Your task to perform on an android device: change notification settings in the gmail app Image 0: 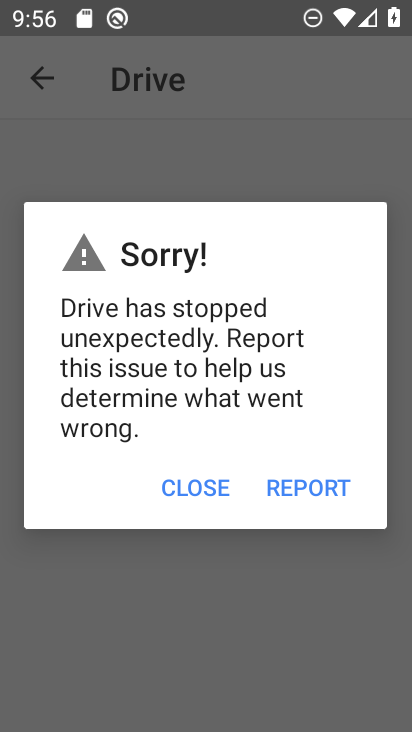
Step 0: press home button
Your task to perform on an android device: change notification settings in the gmail app Image 1: 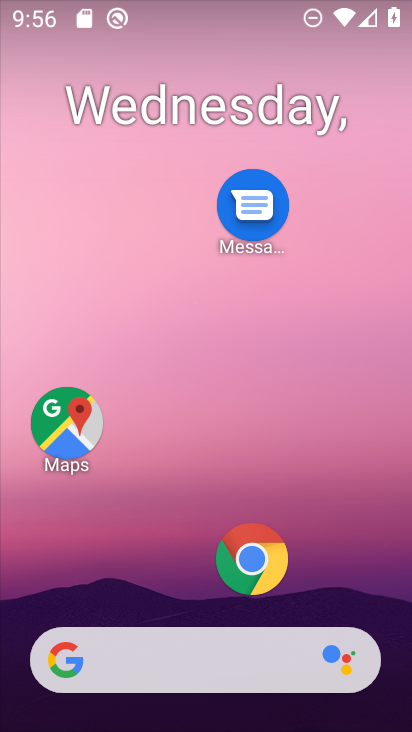
Step 1: drag from (236, 585) to (286, 80)
Your task to perform on an android device: change notification settings in the gmail app Image 2: 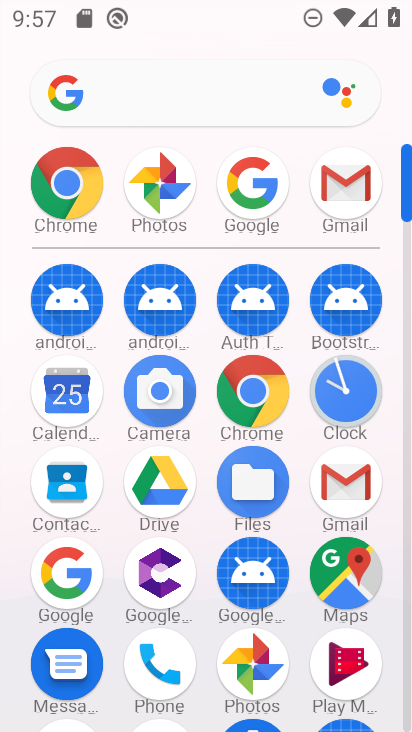
Step 2: click (348, 499)
Your task to perform on an android device: change notification settings in the gmail app Image 3: 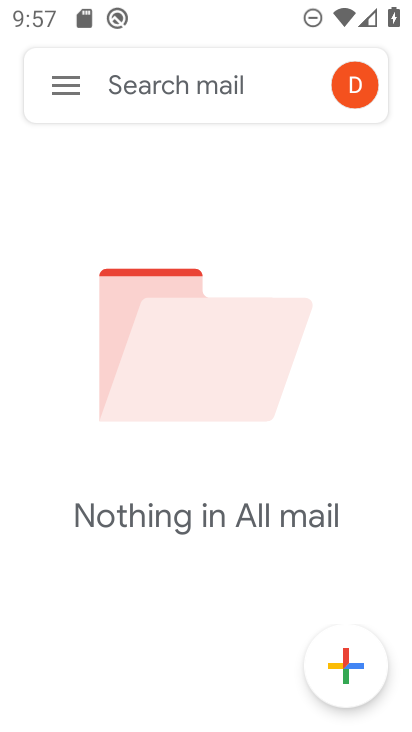
Step 3: click (75, 85)
Your task to perform on an android device: change notification settings in the gmail app Image 4: 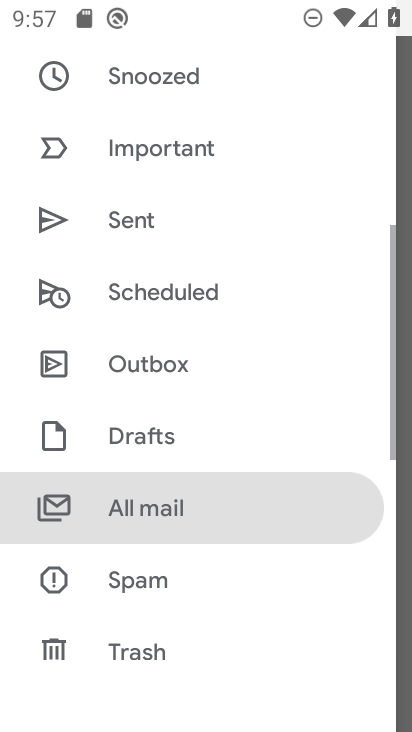
Step 4: drag from (198, 546) to (295, 171)
Your task to perform on an android device: change notification settings in the gmail app Image 5: 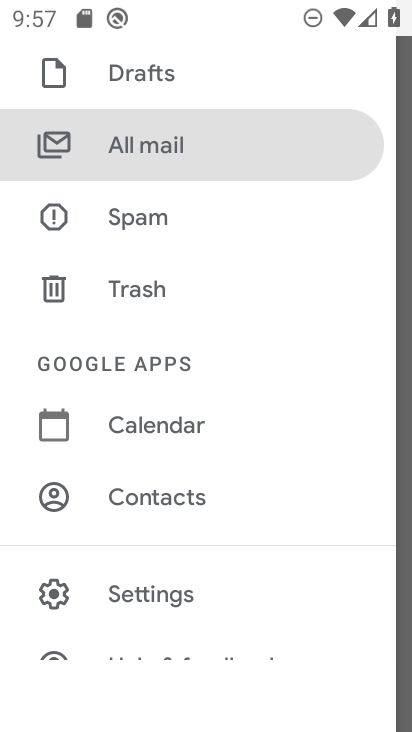
Step 5: click (139, 593)
Your task to perform on an android device: change notification settings in the gmail app Image 6: 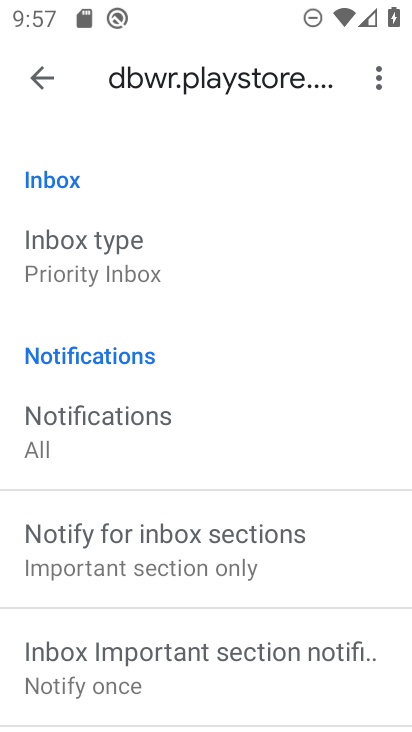
Step 6: click (212, 432)
Your task to perform on an android device: change notification settings in the gmail app Image 7: 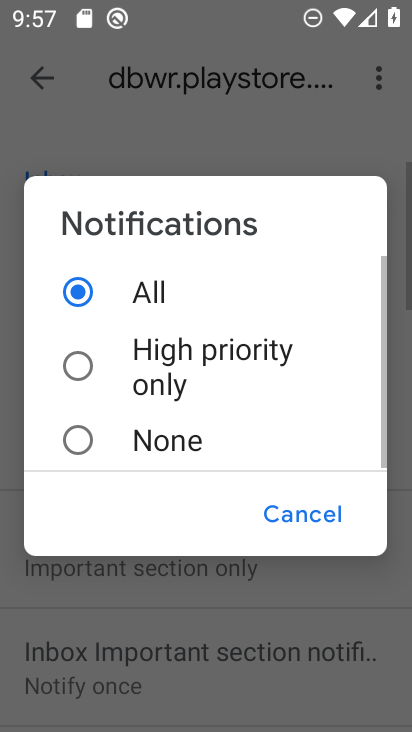
Step 7: click (58, 104)
Your task to perform on an android device: change notification settings in the gmail app Image 8: 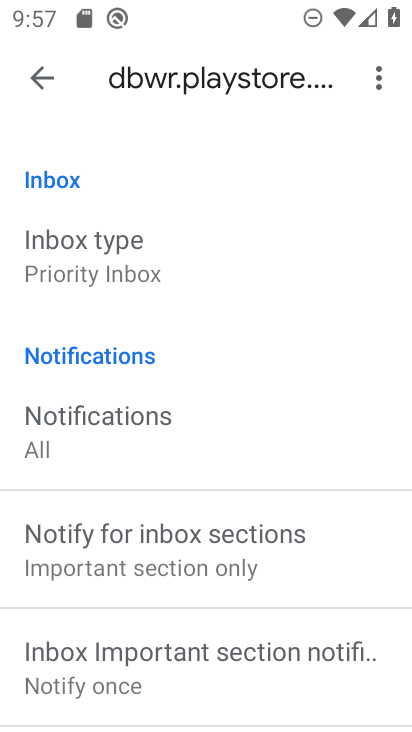
Step 8: click (50, 91)
Your task to perform on an android device: change notification settings in the gmail app Image 9: 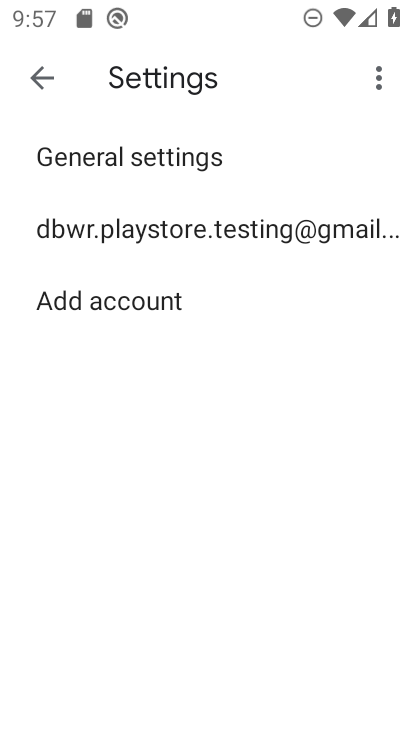
Step 9: click (168, 148)
Your task to perform on an android device: change notification settings in the gmail app Image 10: 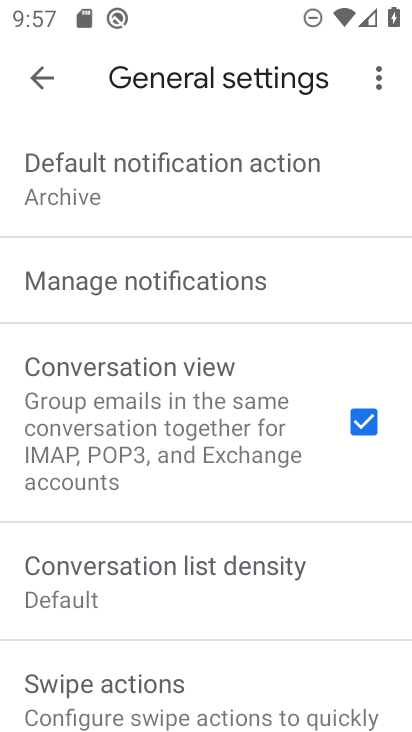
Step 10: click (169, 282)
Your task to perform on an android device: change notification settings in the gmail app Image 11: 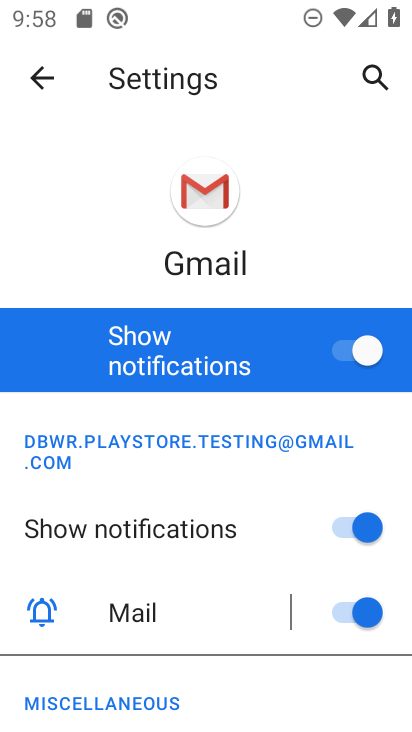
Step 11: click (360, 362)
Your task to perform on an android device: change notification settings in the gmail app Image 12: 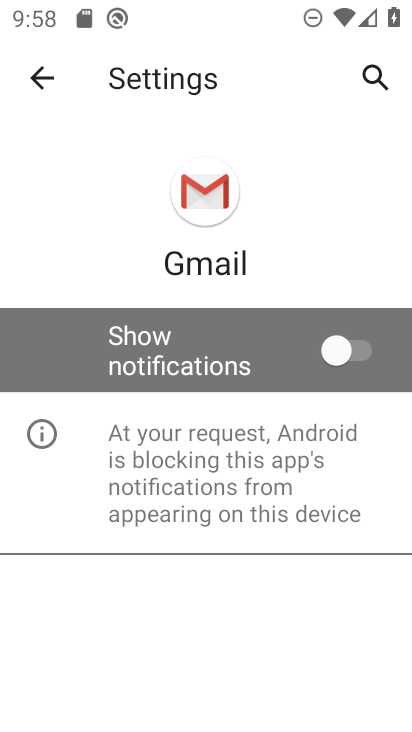
Step 12: task complete